Your task to perform on an android device: empty trash in google photos Image 0: 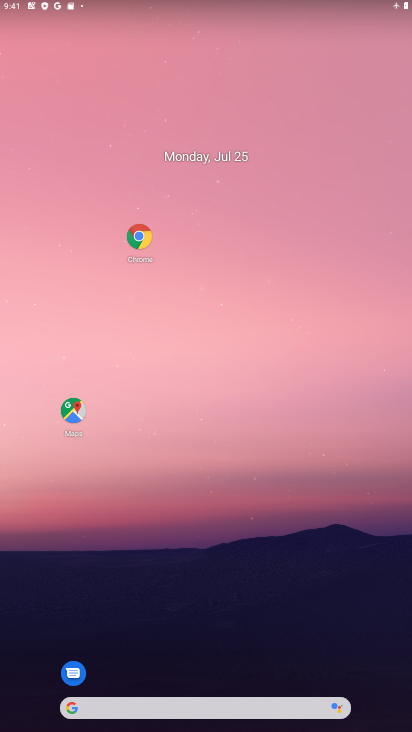
Step 0: drag from (289, 628) to (248, 92)
Your task to perform on an android device: empty trash in google photos Image 1: 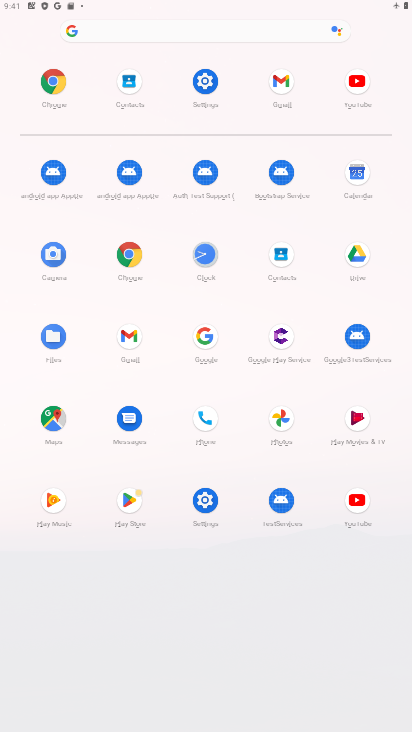
Step 1: click (265, 436)
Your task to perform on an android device: empty trash in google photos Image 2: 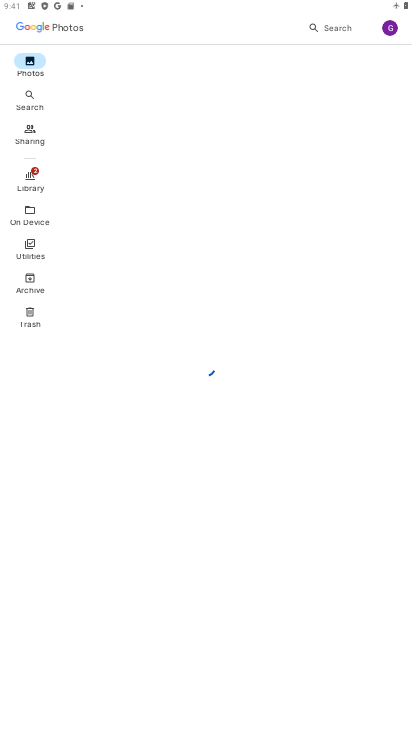
Step 2: task complete